Your task to perform on an android device: toggle improve location accuracy Image 0: 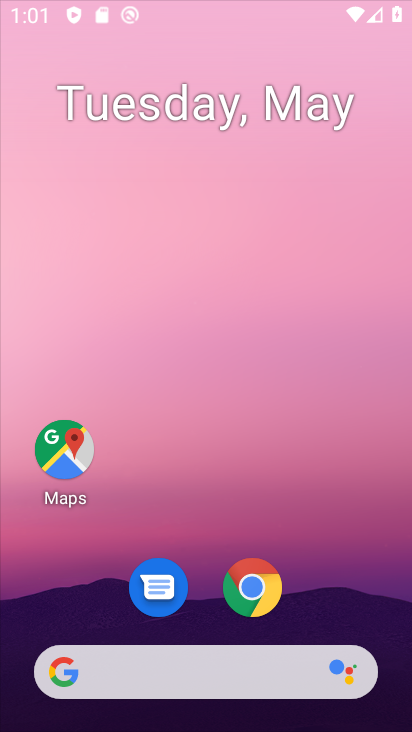
Step 0: click (253, 149)
Your task to perform on an android device: toggle improve location accuracy Image 1: 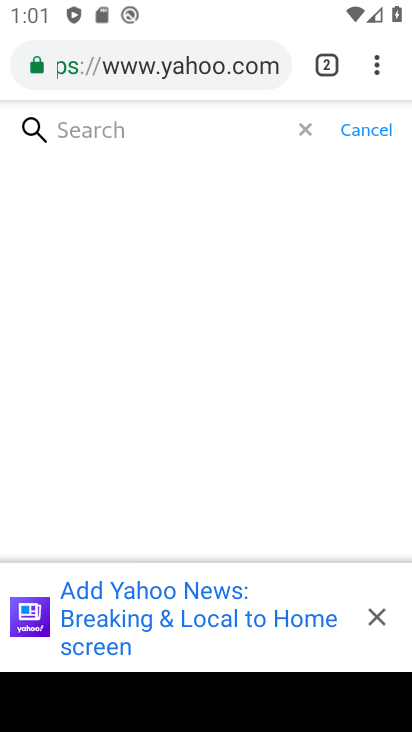
Step 1: drag from (202, 484) to (202, 262)
Your task to perform on an android device: toggle improve location accuracy Image 2: 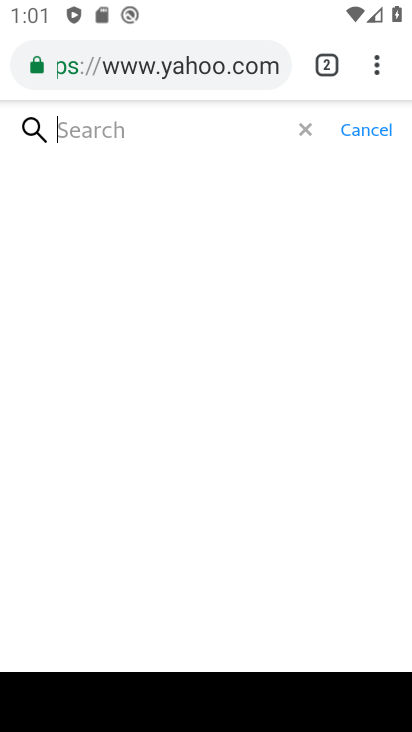
Step 2: press home button
Your task to perform on an android device: toggle improve location accuracy Image 3: 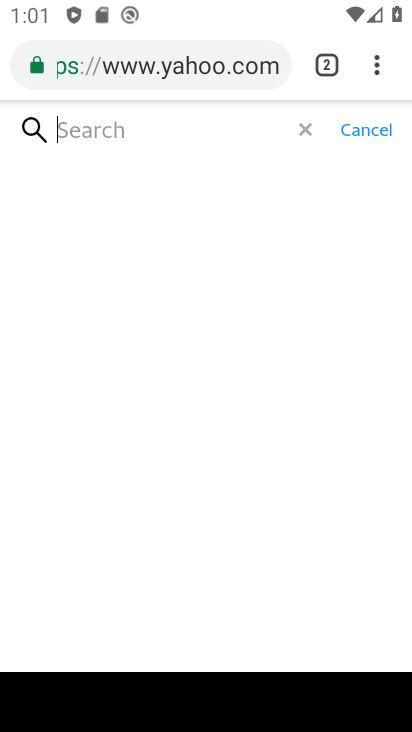
Step 3: drag from (261, 17) to (220, 16)
Your task to perform on an android device: toggle improve location accuracy Image 4: 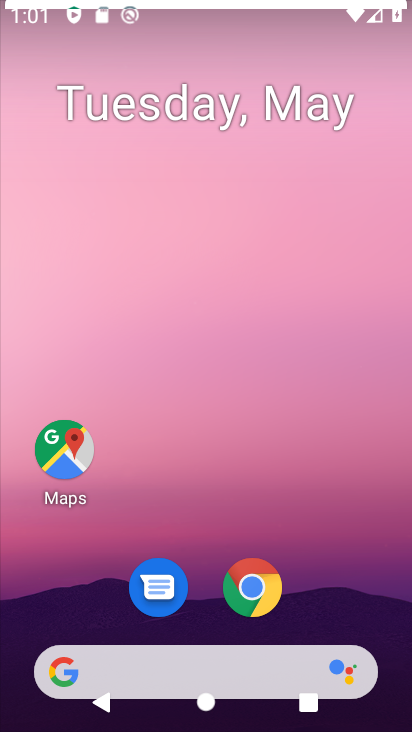
Step 4: drag from (210, 585) to (229, 53)
Your task to perform on an android device: toggle improve location accuracy Image 5: 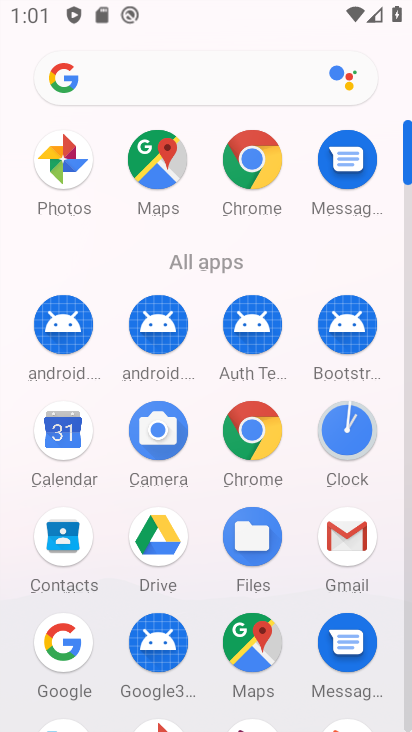
Step 5: drag from (183, 637) to (195, 175)
Your task to perform on an android device: toggle improve location accuracy Image 6: 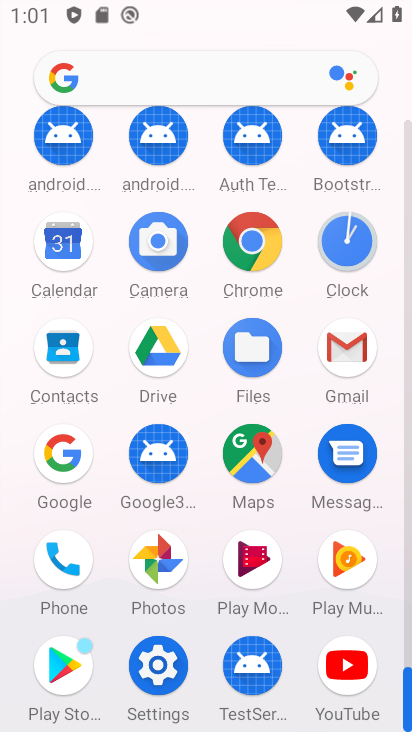
Step 6: click (168, 681)
Your task to perform on an android device: toggle improve location accuracy Image 7: 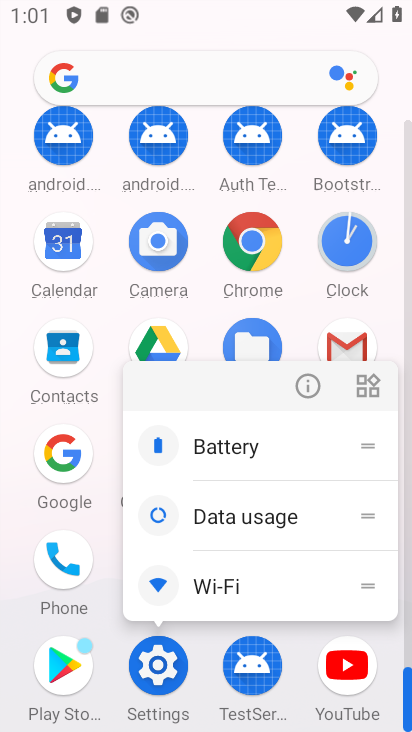
Step 7: click (306, 382)
Your task to perform on an android device: toggle improve location accuracy Image 8: 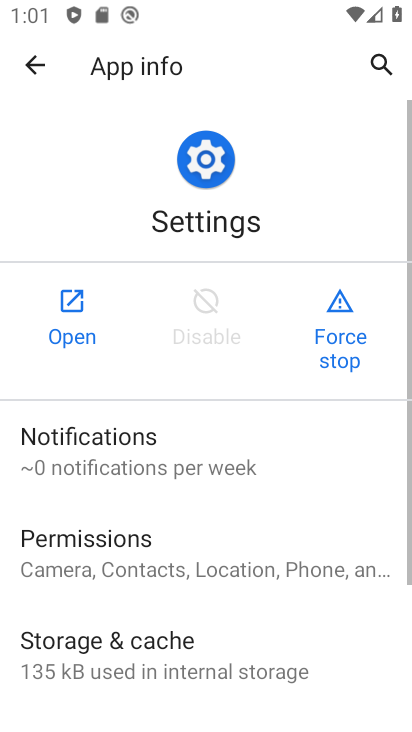
Step 8: click (69, 296)
Your task to perform on an android device: toggle improve location accuracy Image 9: 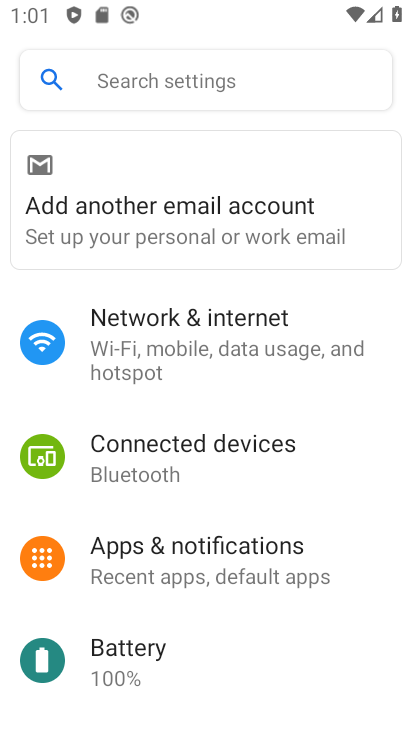
Step 9: drag from (228, 641) to (292, 199)
Your task to perform on an android device: toggle improve location accuracy Image 10: 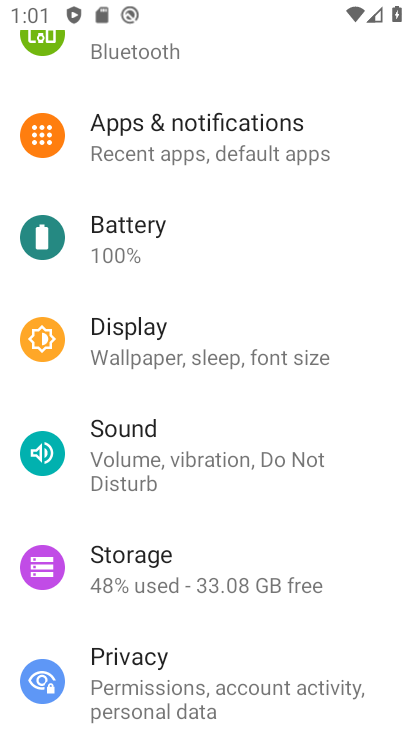
Step 10: drag from (203, 617) to (272, 301)
Your task to perform on an android device: toggle improve location accuracy Image 11: 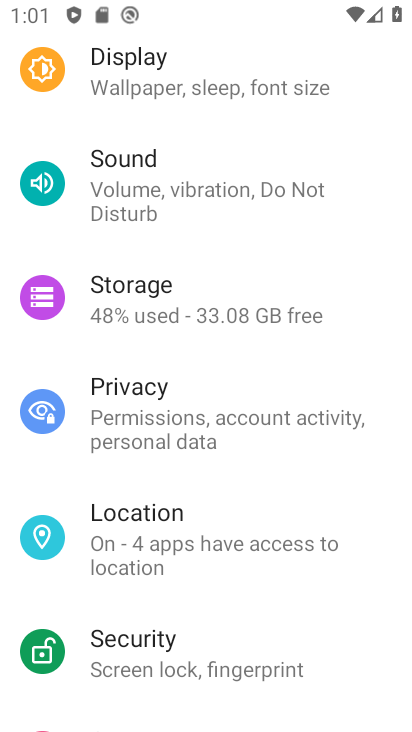
Step 11: click (201, 530)
Your task to perform on an android device: toggle improve location accuracy Image 12: 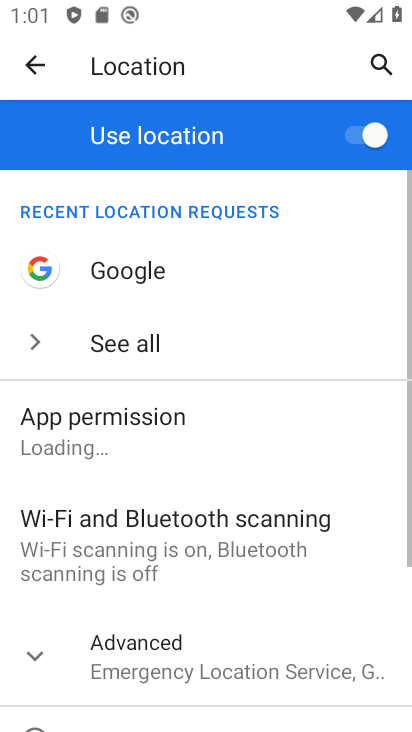
Step 12: drag from (257, 591) to (278, 338)
Your task to perform on an android device: toggle improve location accuracy Image 13: 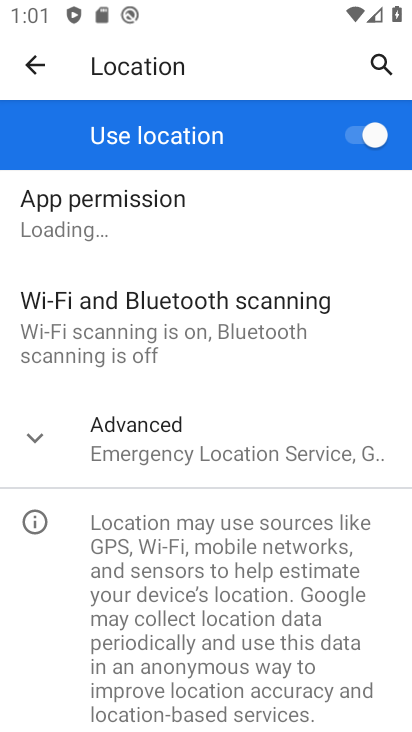
Step 13: click (215, 428)
Your task to perform on an android device: toggle improve location accuracy Image 14: 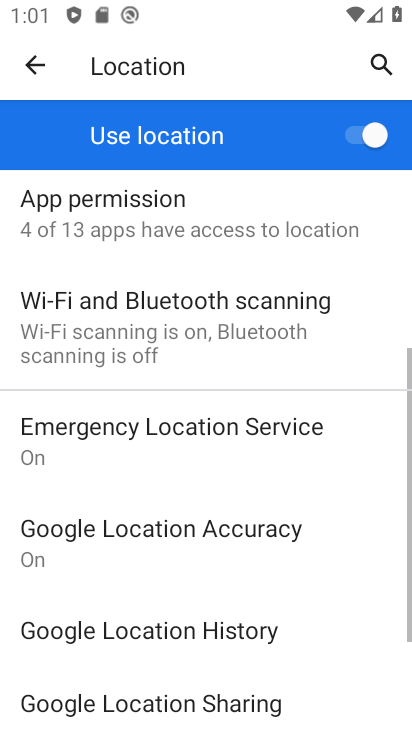
Step 14: click (195, 548)
Your task to perform on an android device: toggle improve location accuracy Image 15: 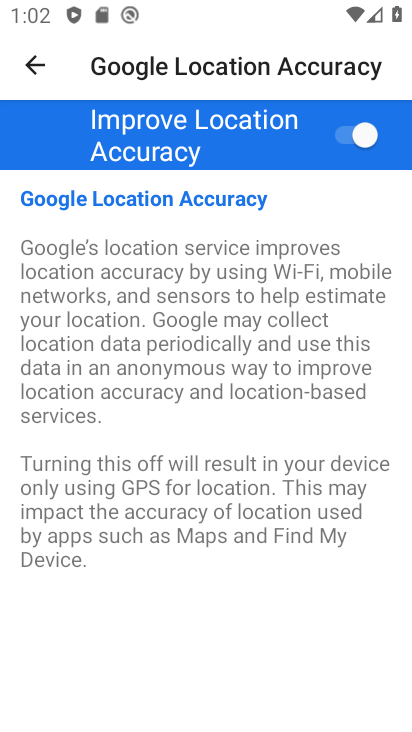
Step 15: drag from (199, 583) to (255, 360)
Your task to perform on an android device: toggle improve location accuracy Image 16: 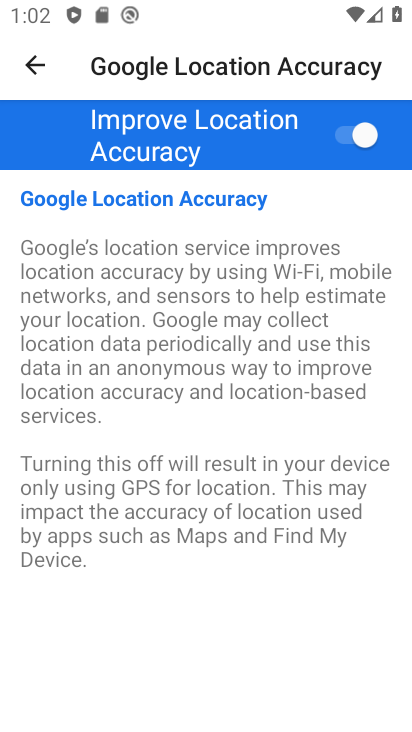
Step 16: drag from (268, 576) to (323, 325)
Your task to perform on an android device: toggle improve location accuracy Image 17: 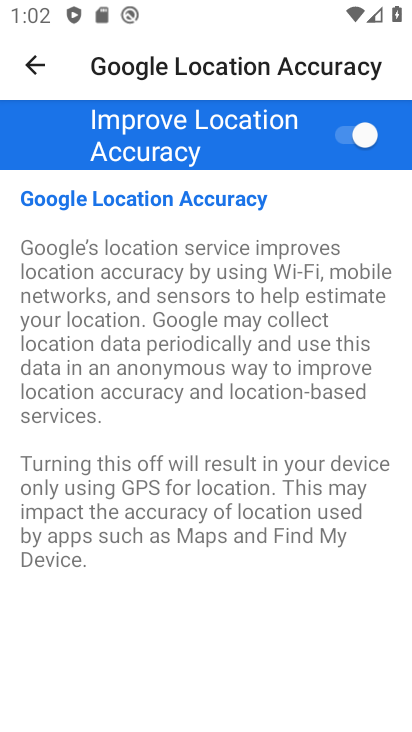
Step 17: drag from (272, 568) to (307, 275)
Your task to perform on an android device: toggle improve location accuracy Image 18: 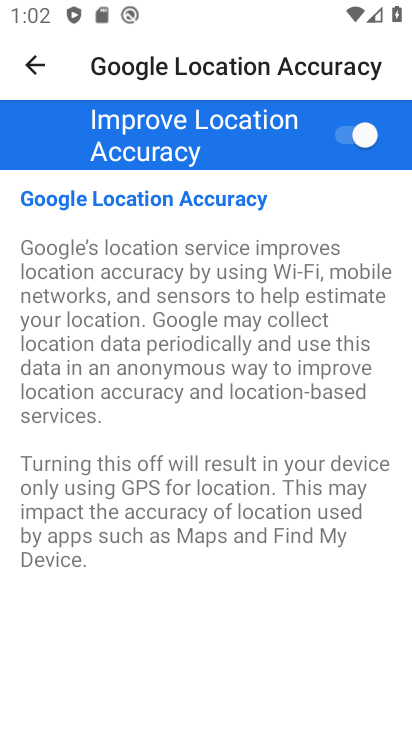
Step 18: drag from (303, 262) to (291, 554)
Your task to perform on an android device: toggle improve location accuracy Image 19: 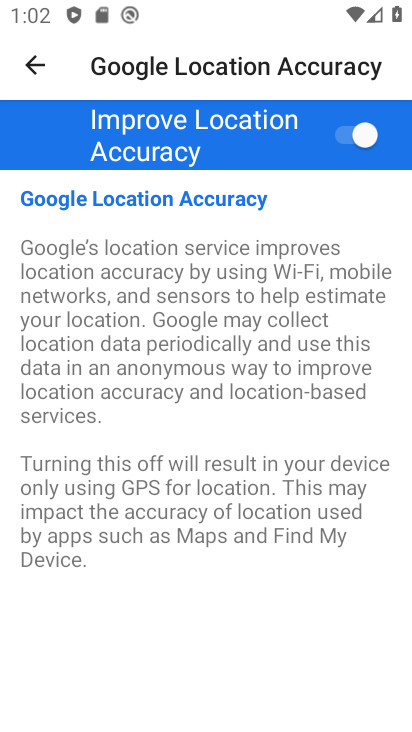
Step 19: drag from (229, 377) to (252, 636)
Your task to perform on an android device: toggle improve location accuracy Image 20: 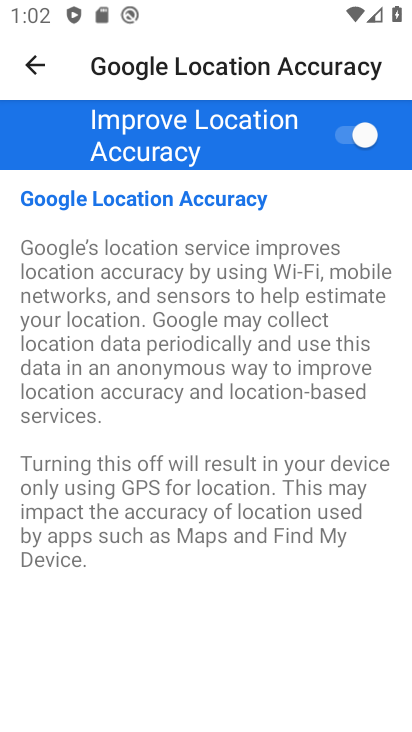
Step 20: click (232, 605)
Your task to perform on an android device: toggle improve location accuracy Image 21: 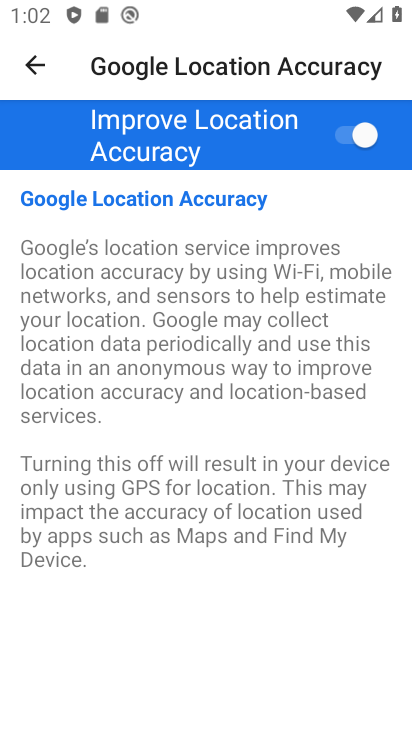
Step 21: click (205, 516)
Your task to perform on an android device: toggle improve location accuracy Image 22: 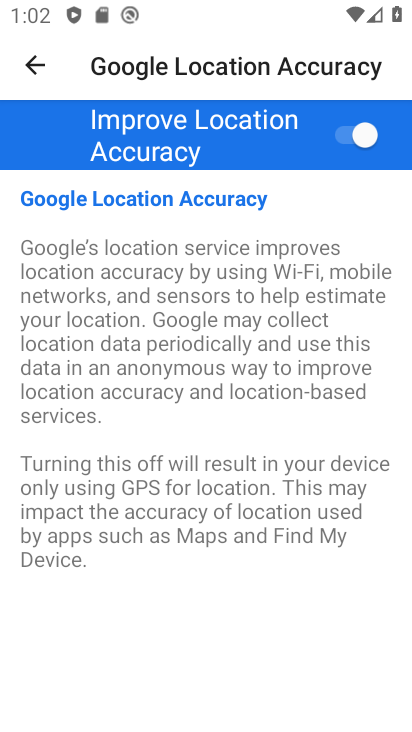
Step 22: click (205, 515)
Your task to perform on an android device: toggle improve location accuracy Image 23: 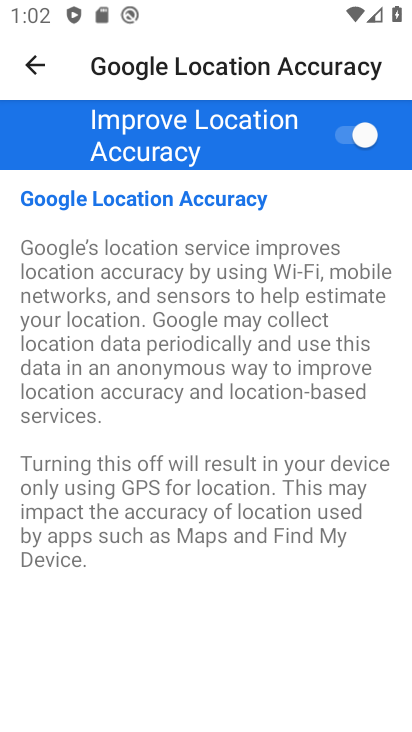
Step 23: click (366, 130)
Your task to perform on an android device: toggle improve location accuracy Image 24: 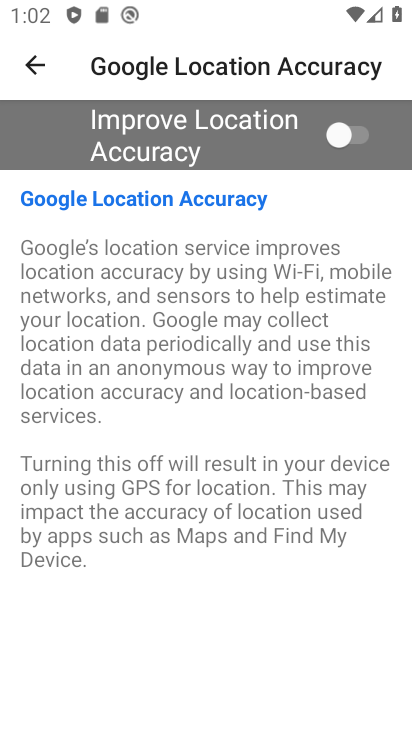
Step 24: task complete